Your task to perform on an android device: Is it going to rain today? Image 0: 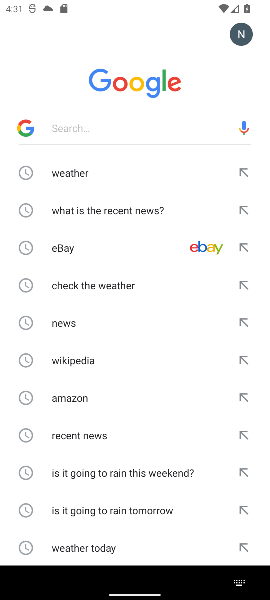
Step 0: type "Is it going to rain today?"
Your task to perform on an android device: Is it going to rain today? Image 1: 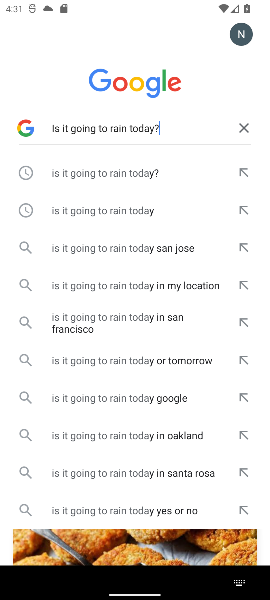
Step 1: press enter
Your task to perform on an android device: Is it going to rain today? Image 2: 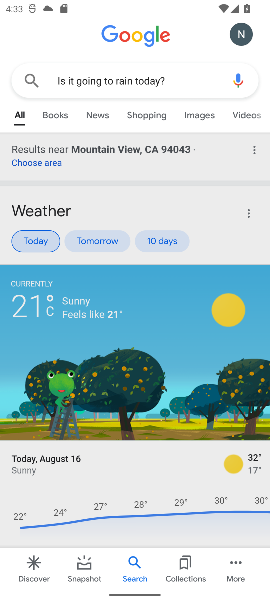
Step 2: task complete